Your task to perform on an android device: change keyboard looks Image 0: 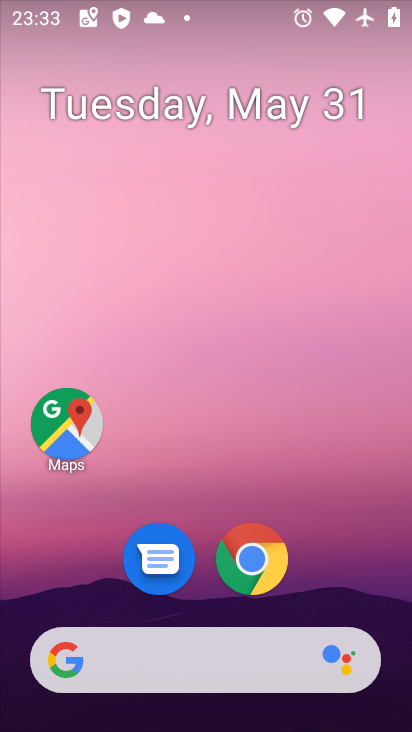
Step 0: drag from (328, 553) to (339, 41)
Your task to perform on an android device: change keyboard looks Image 1: 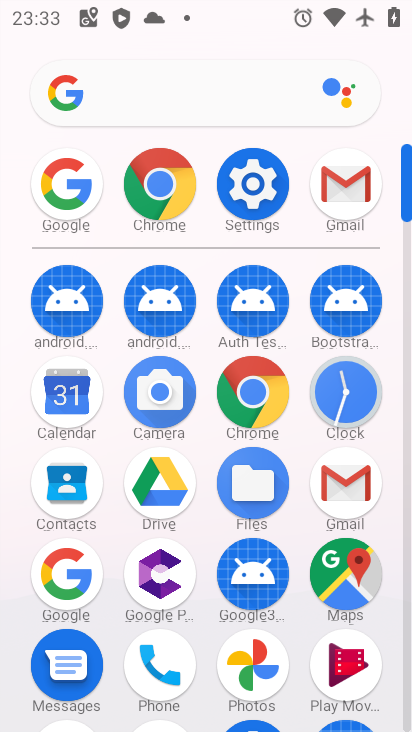
Step 1: click (257, 183)
Your task to perform on an android device: change keyboard looks Image 2: 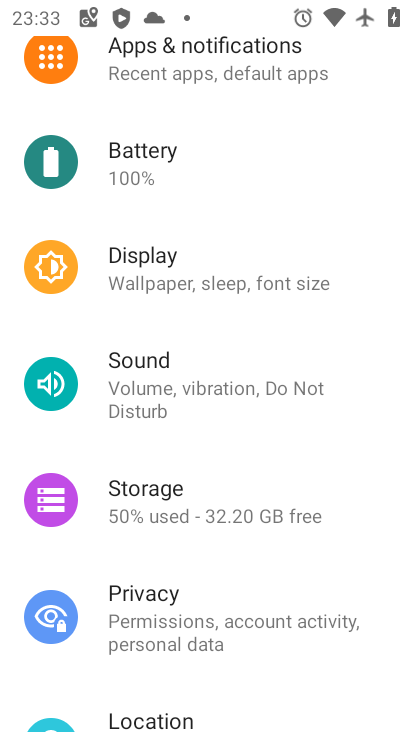
Step 2: drag from (233, 645) to (230, 17)
Your task to perform on an android device: change keyboard looks Image 3: 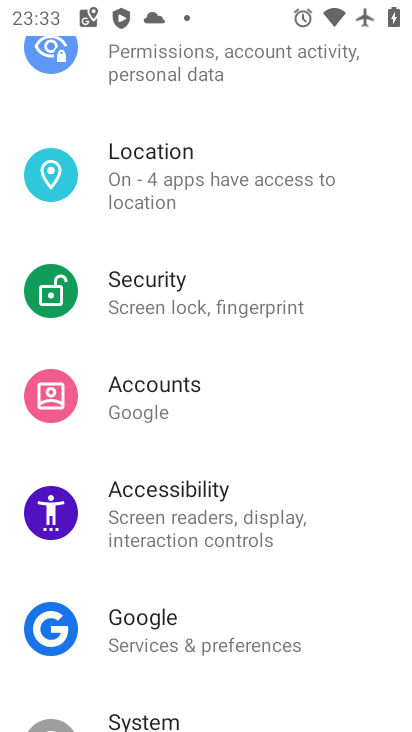
Step 3: drag from (226, 639) to (207, 363)
Your task to perform on an android device: change keyboard looks Image 4: 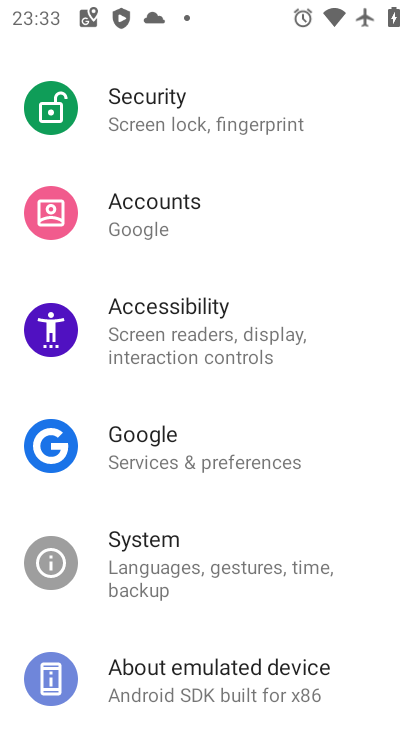
Step 4: click (181, 559)
Your task to perform on an android device: change keyboard looks Image 5: 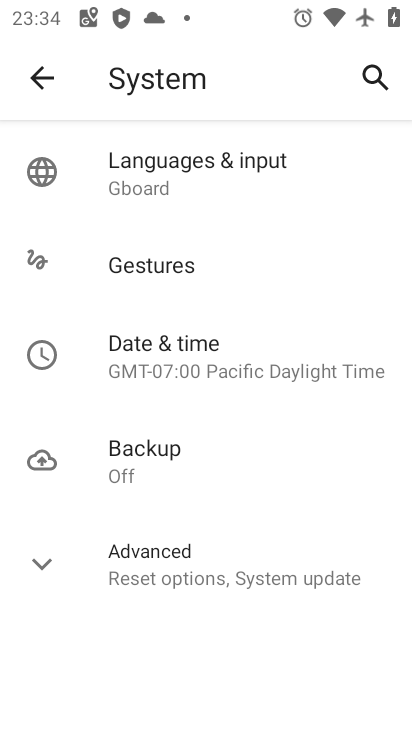
Step 5: click (191, 164)
Your task to perform on an android device: change keyboard looks Image 6: 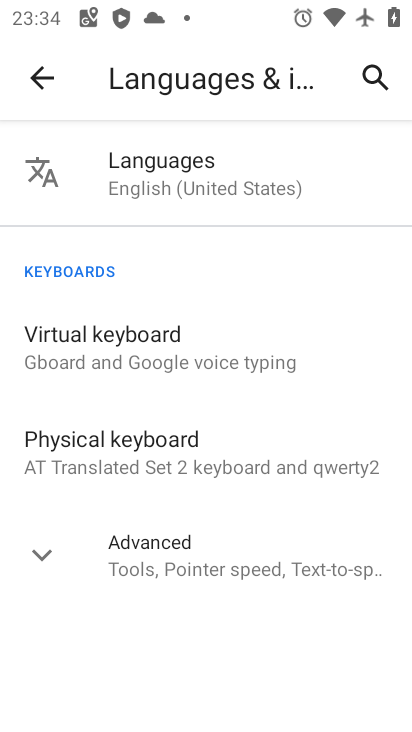
Step 6: click (157, 349)
Your task to perform on an android device: change keyboard looks Image 7: 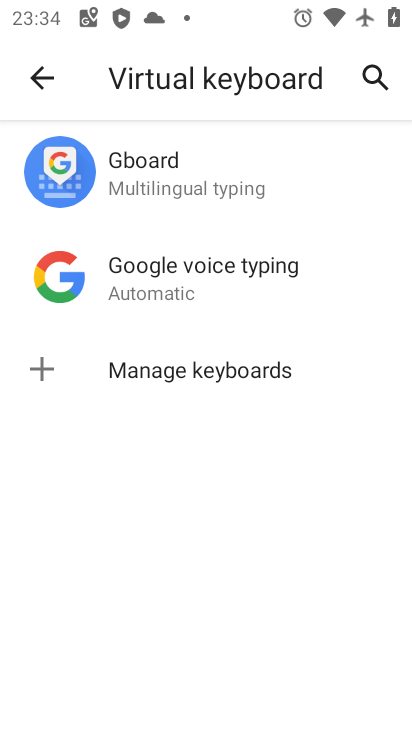
Step 7: click (164, 173)
Your task to perform on an android device: change keyboard looks Image 8: 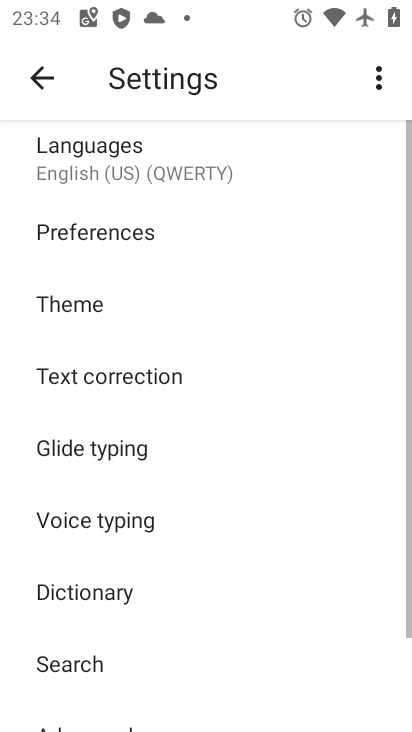
Step 8: click (126, 321)
Your task to perform on an android device: change keyboard looks Image 9: 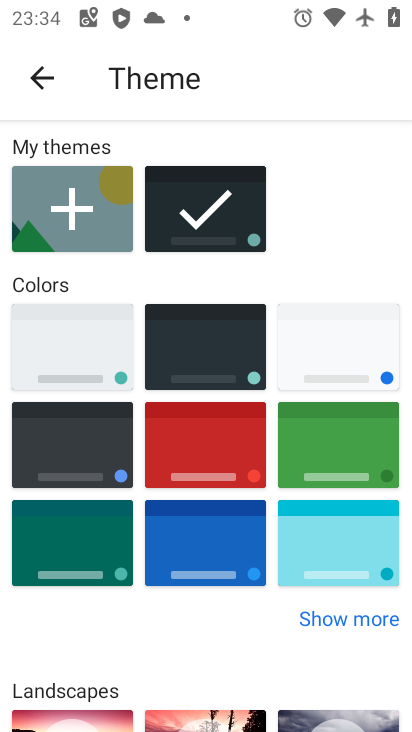
Step 9: click (197, 327)
Your task to perform on an android device: change keyboard looks Image 10: 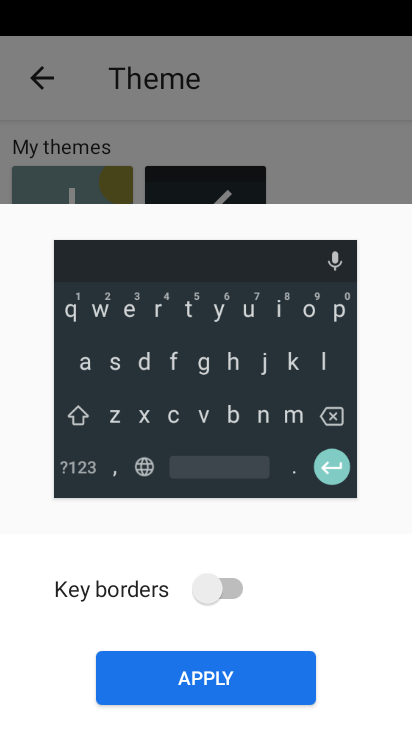
Step 10: click (202, 692)
Your task to perform on an android device: change keyboard looks Image 11: 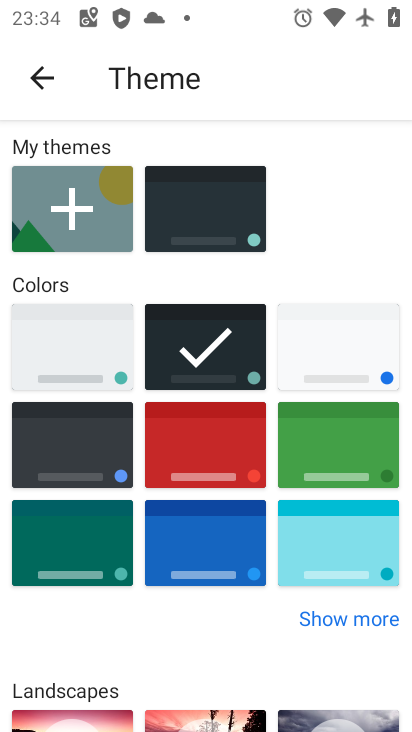
Step 11: task complete